Your task to perform on an android device: Go to internet settings Image 0: 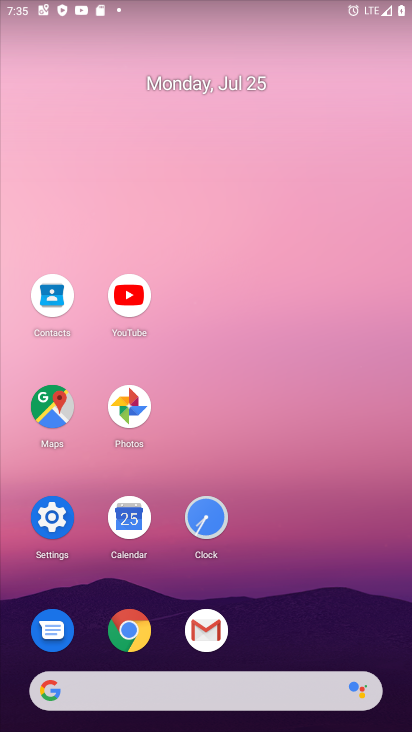
Step 0: click (42, 517)
Your task to perform on an android device: Go to internet settings Image 1: 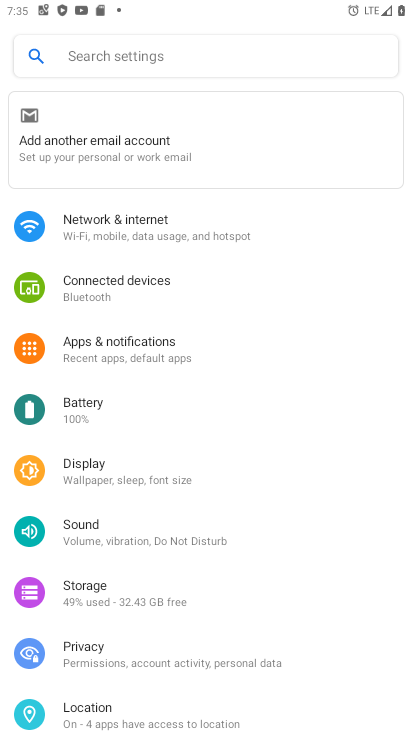
Step 1: click (114, 226)
Your task to perform on an android device: Go to internet settings Image 2: 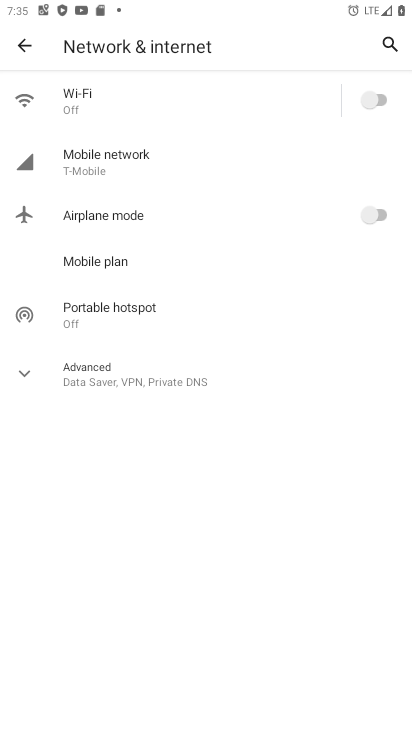
Step 2: click (118, 158)
Your task to perform on an android device: Go to internet settings Image 3: 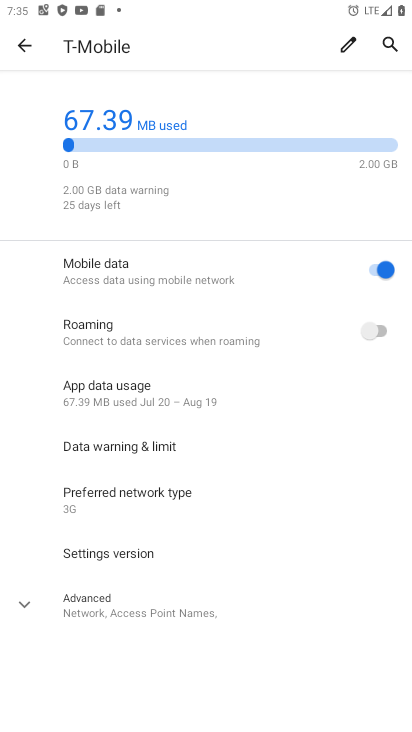
Step 3: task complete